Your task to perform on an android device: Open Chrome and go to settings Image 0: 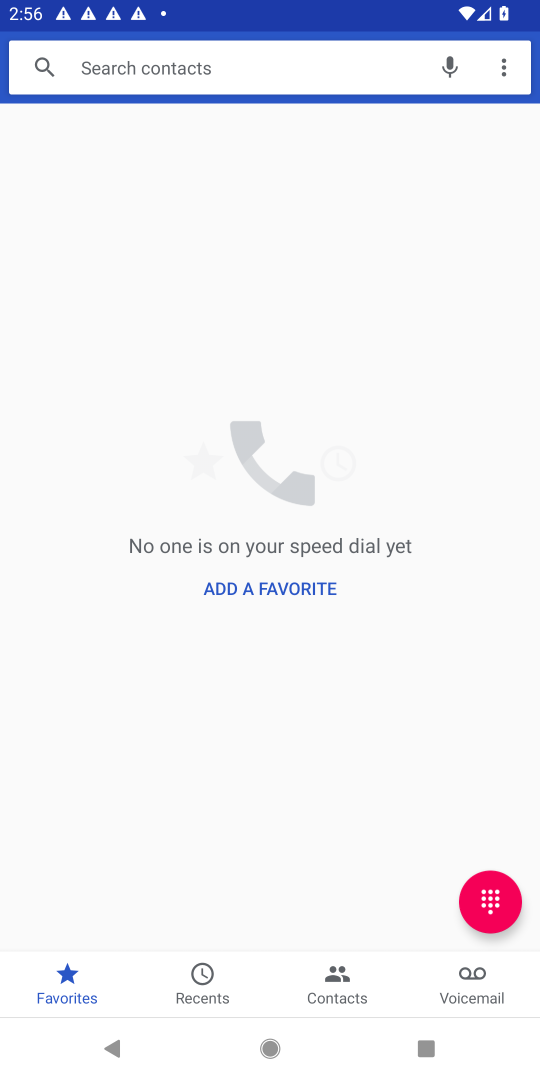
Step 0: press home button
Your task to perform on an android device: Open Chrome and go to settings Image 1: 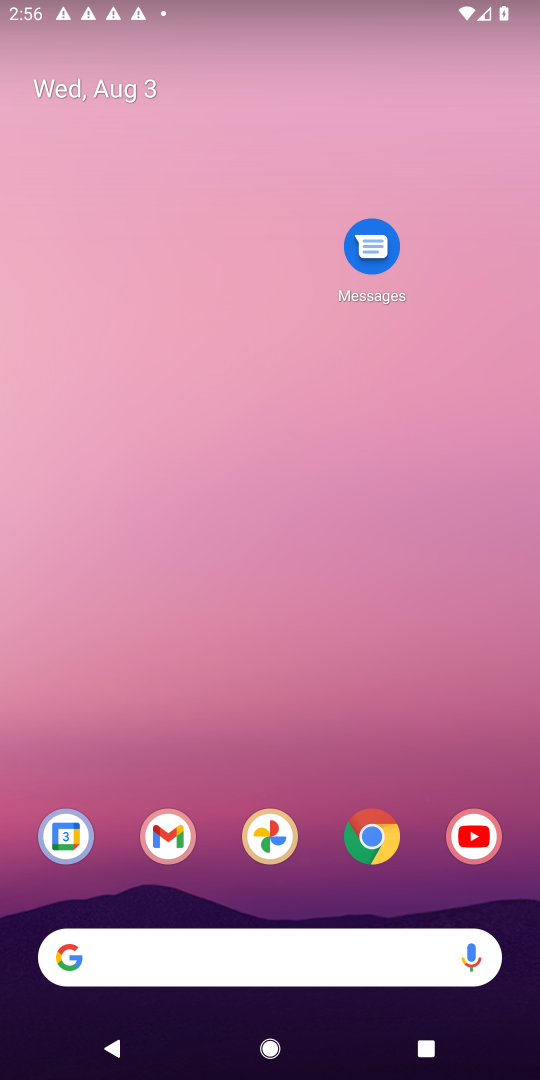
Step 1: click (368, 840)
Your task to perform on an android device: Open Chrome and go to settings Image 2: 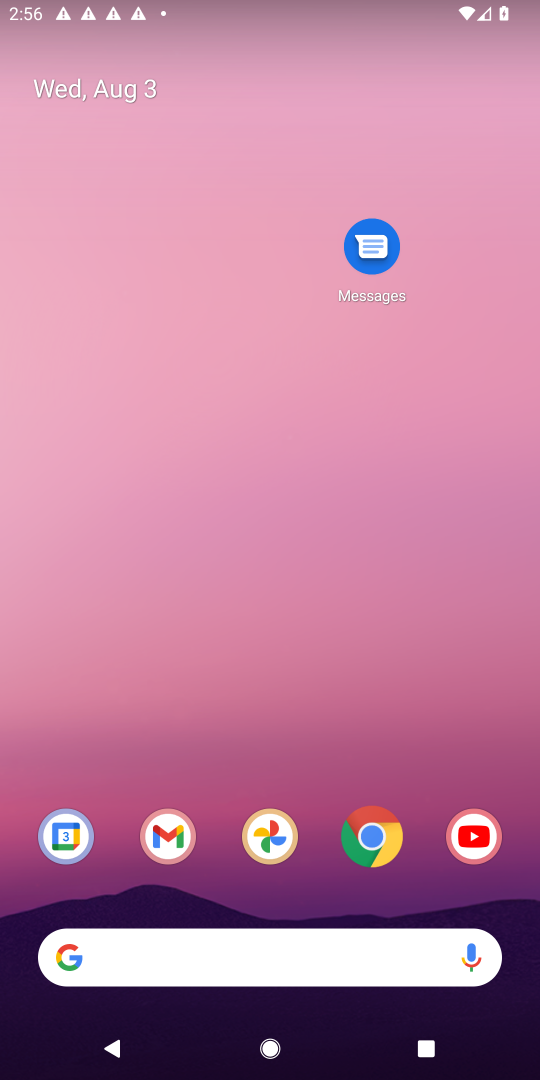
Step 2: click (372, 818)
Your task to perform on an android device: Open Chrome and go to settings Image 3: 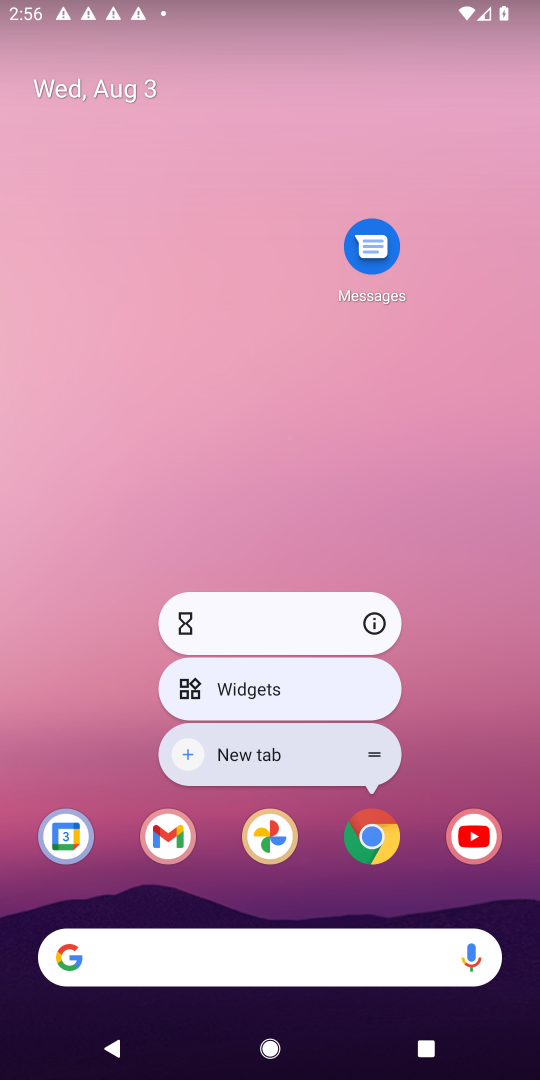
Step 3: drag from (370, 822) to (497, 1045)
Your task to perform on an android device: Open Chrome and go to settings Image 4: 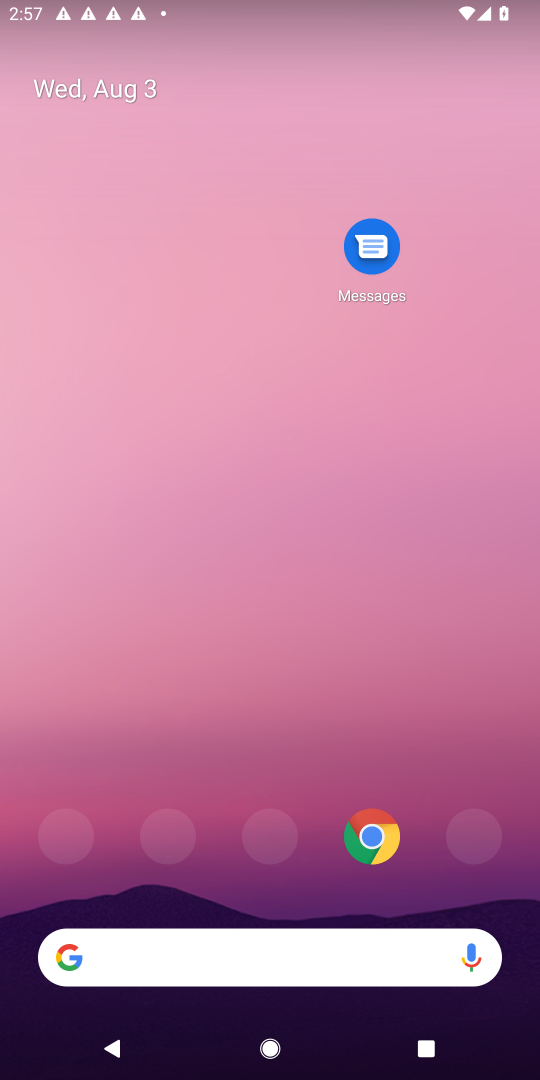
Step 4: click (375, 841)
Your task to perform on an android device: Open Chrome and go to settings Image 5: 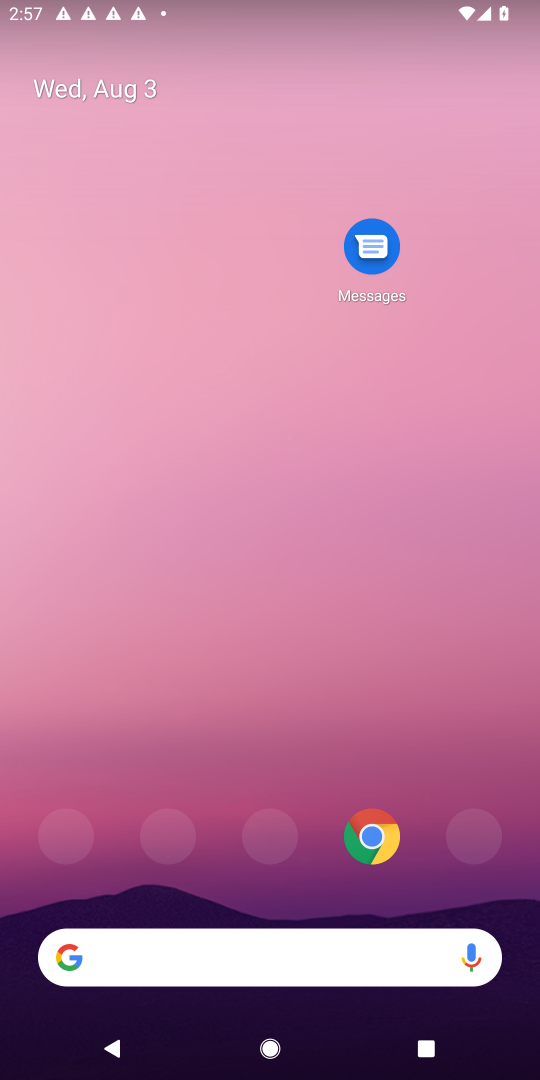
Step 5: click (365, 823)
Your task to perform on an android device: Open Chrome and go to settings Image 6: 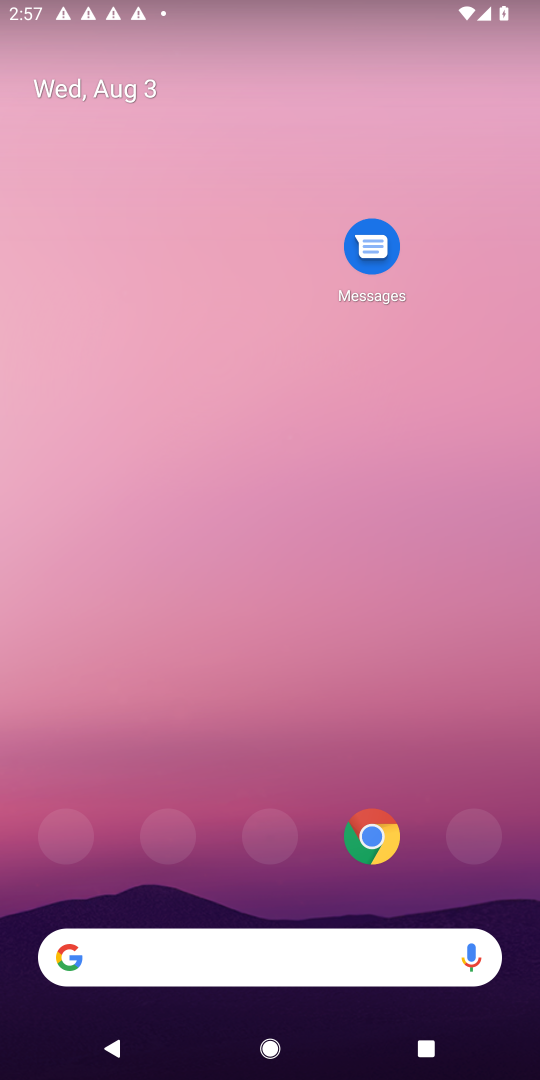
Step 6: click (392, 823)
Your task to perform on an android device: Open Chrome and go to settings Image 7: 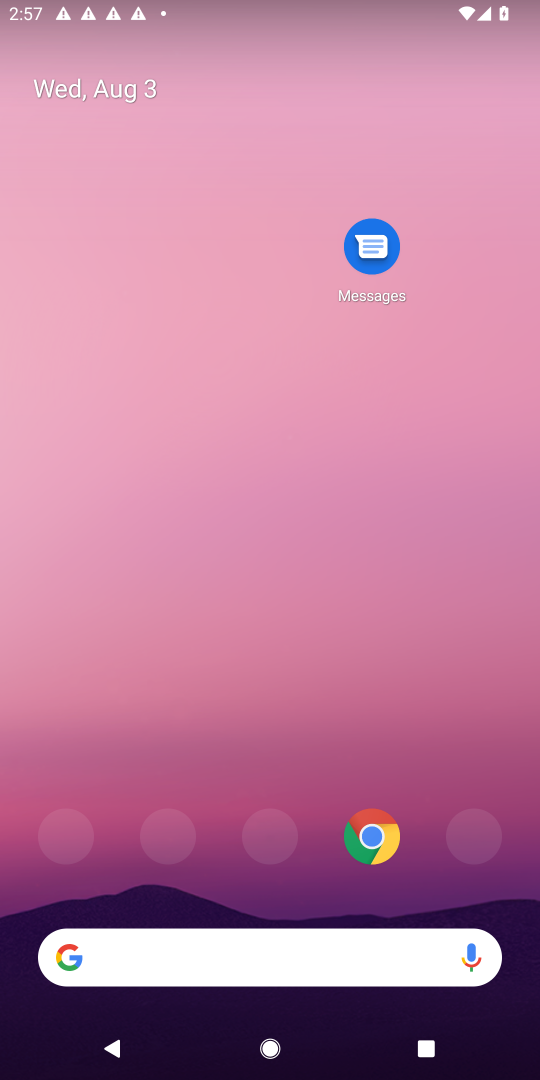
Step 7: click (381, 815)
Your task to perform on an android device: Open Chrome and go to settings Image 8: 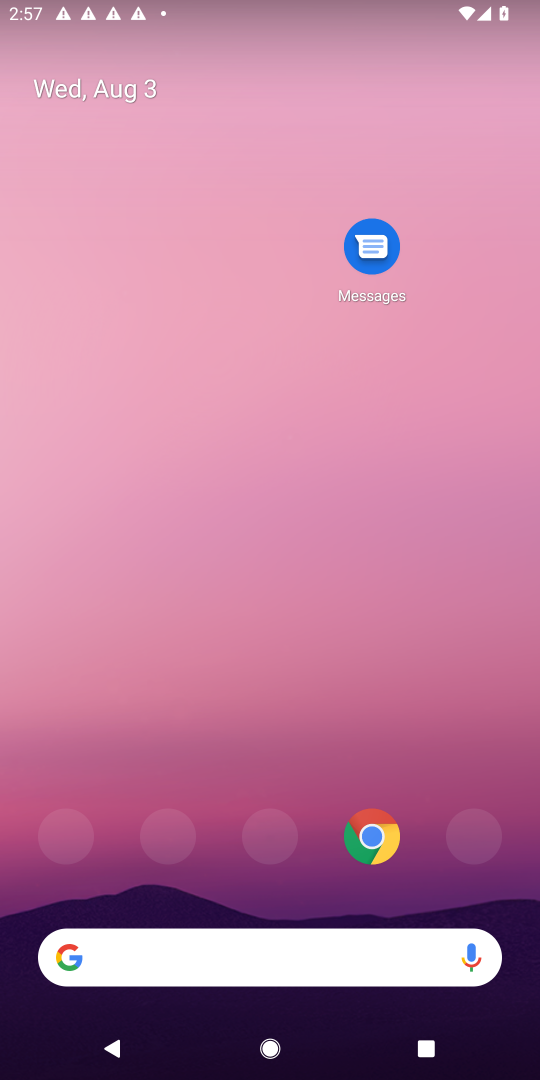
Step 8: click (376, 838)
Your task to perform on an android device: Open Chrome and go to settings Image 9: 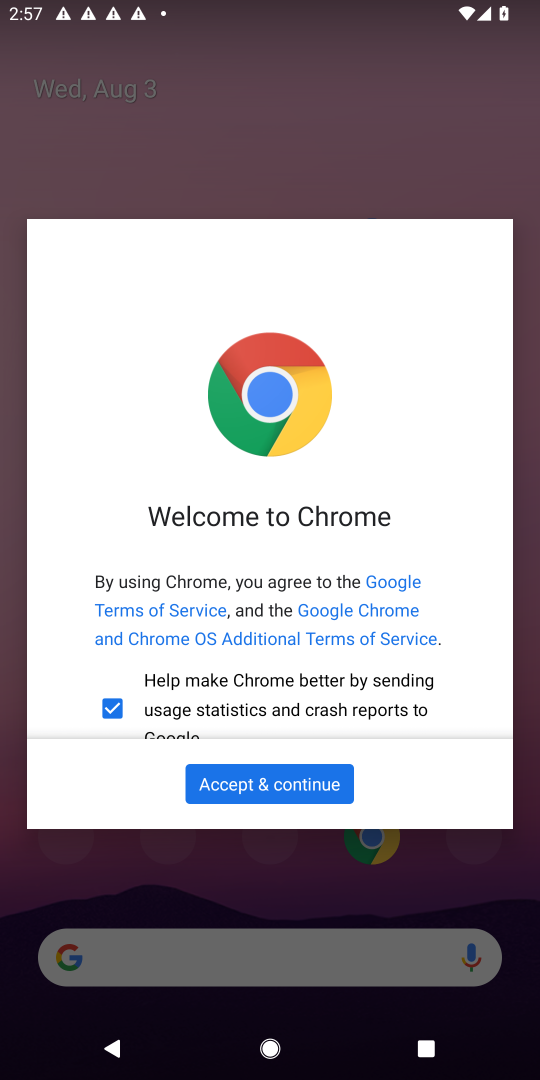
Step 9: click (283, 783)
Your task to perform on an android device: Open Chrome and go to settings Image 10: 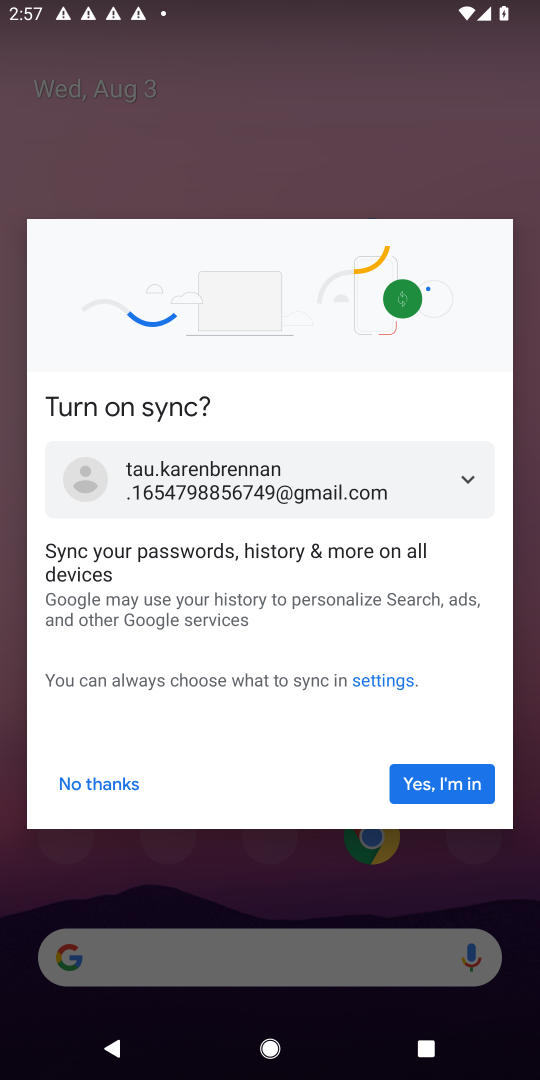
Step 10: click (96, 757)
Your task to perform on an android device: Open Chrome and go to settings Image 11: 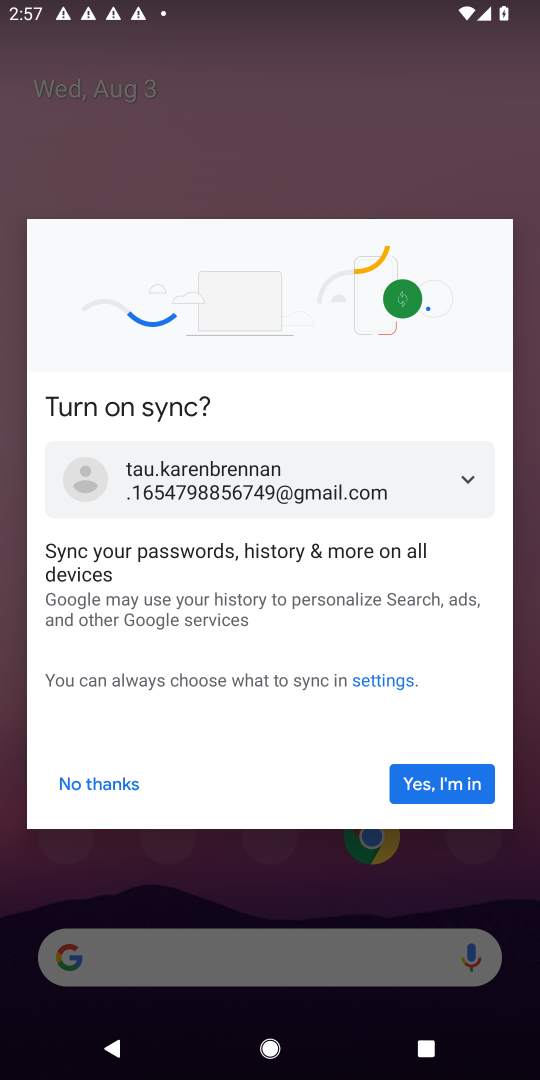
Step 11: click (104, 796)
Your task to perform on an android device: Open Chrome and go to settings Image 12: 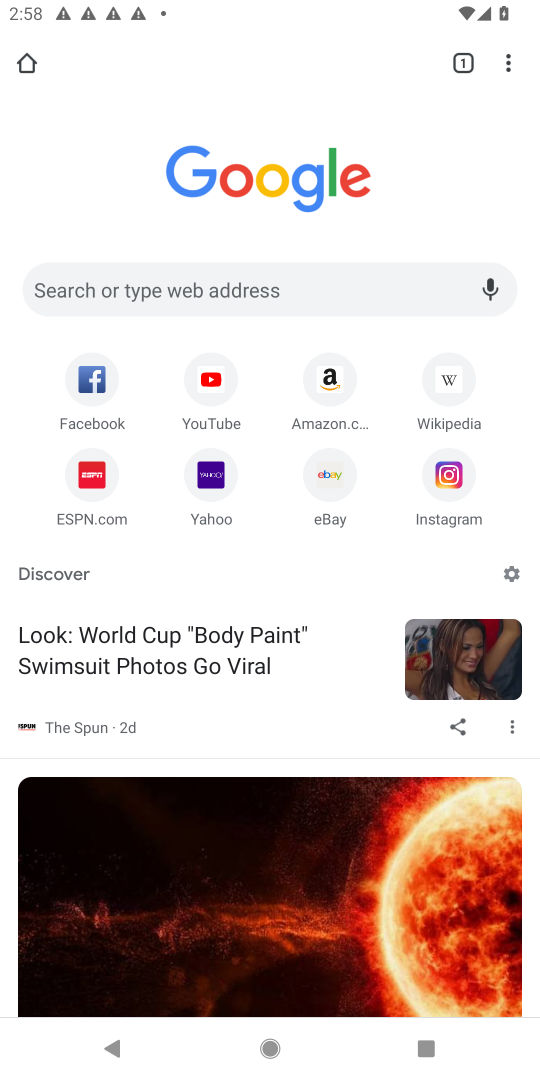
Step 12: click (512, 63)
Your task to perform on an android device: Open Chrome and go to settings Image 13: 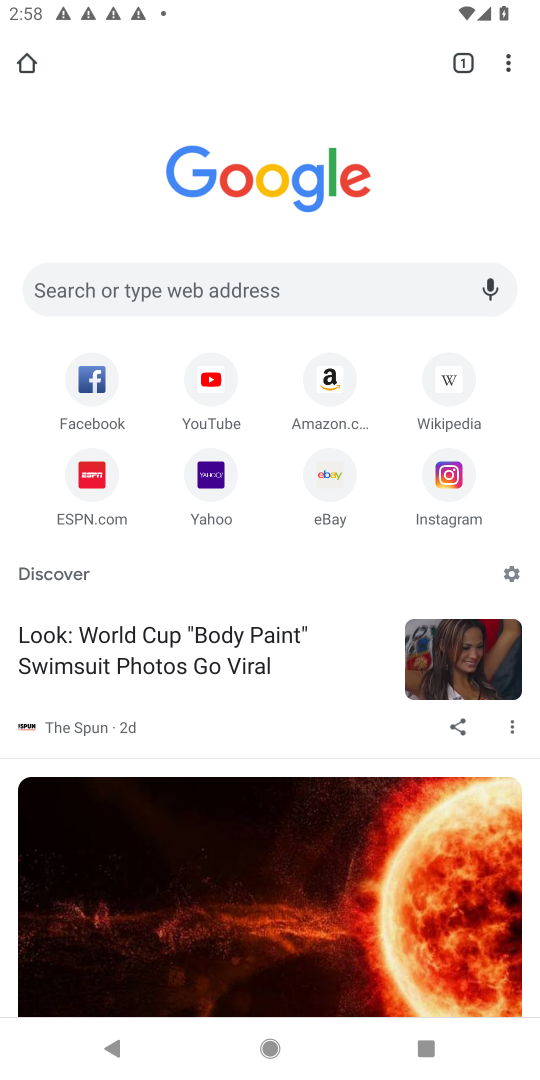
Step 13: click (507, 55)
Your task to perform on an android device: Open Chrome and go to settings Image 14: 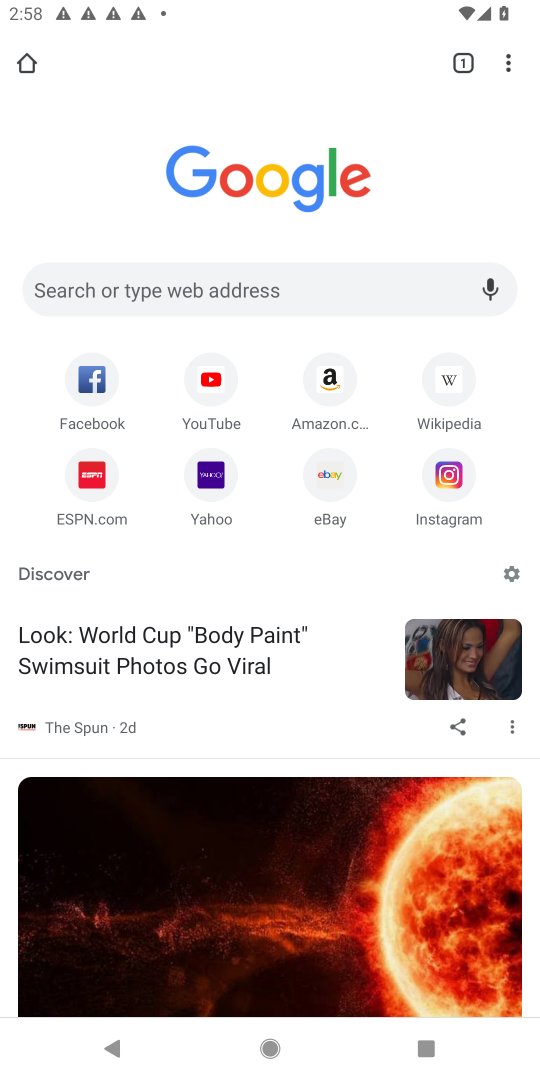
Step 14: click (510, 60)
Your task to perform on an android device: Open Chrome and go to settings Image 15: 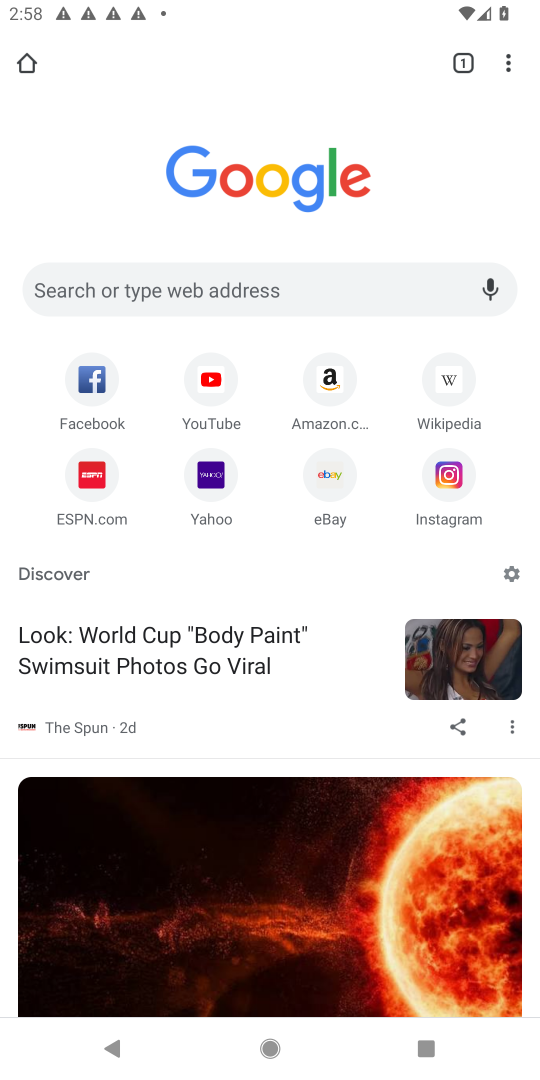
Step 15: click (511, 56)
Your task to perform on an android device: Open Chrome and go to settings Image 16: 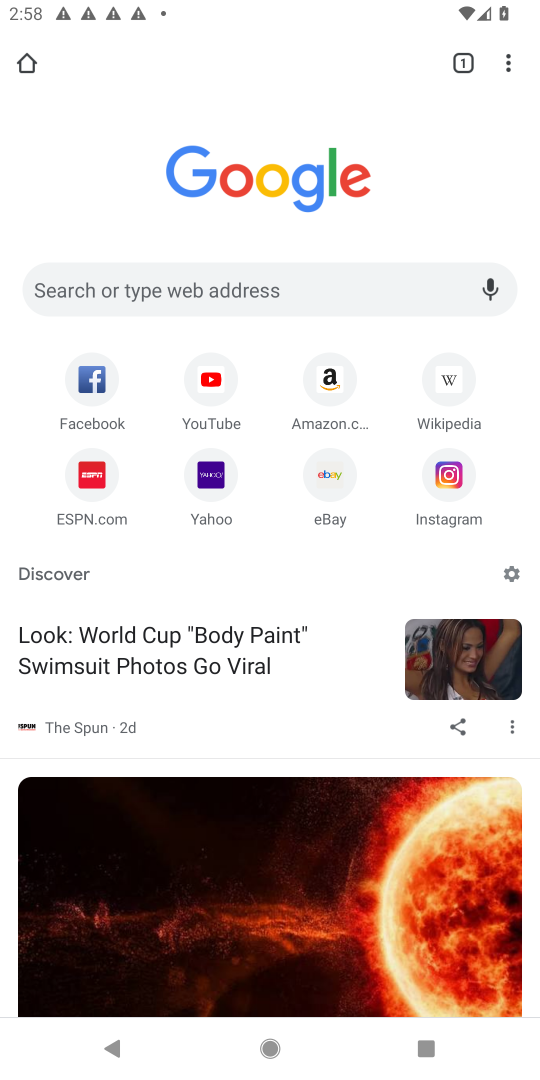
Step 16: click (510, 57)
Your task to perform on an android device: Open Chrome and go to settings Image 17: 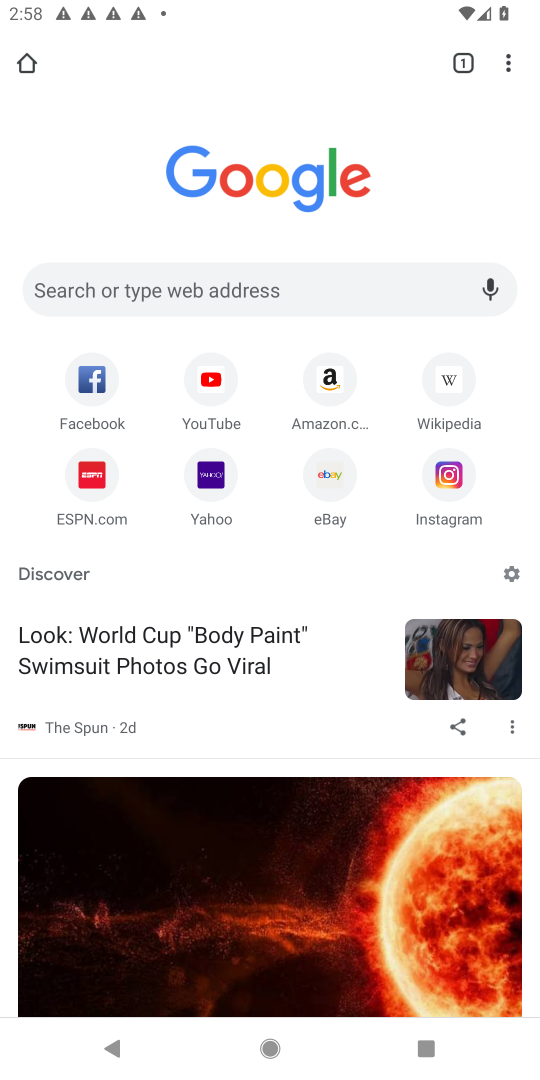
Step 17: click (509, 60)
Your task to perform on an android device: Open Chrome and go to settings Image 18: 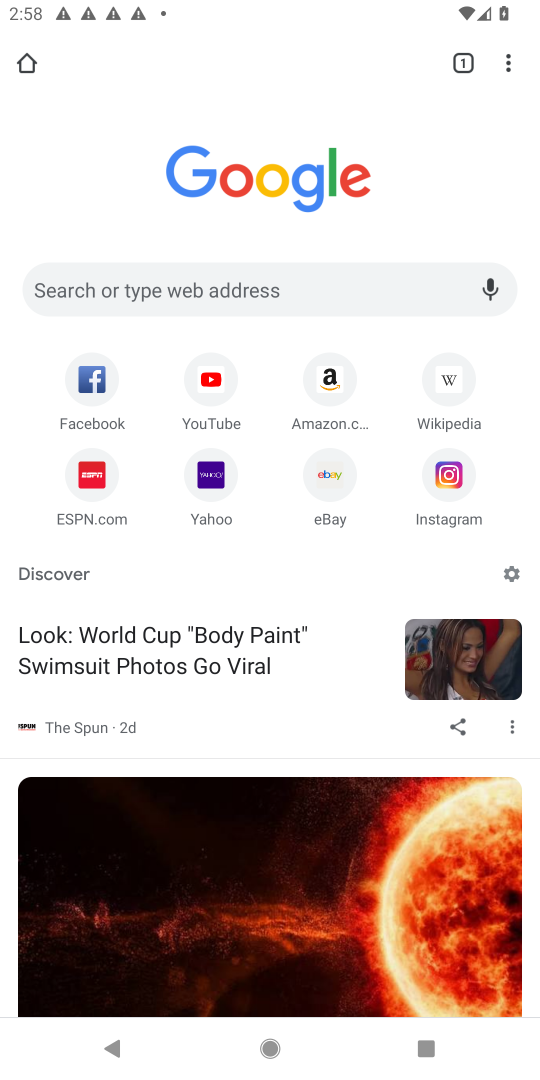
Step 18: task complete